Your task to perform on an android device: change text size in settings app Image 0: 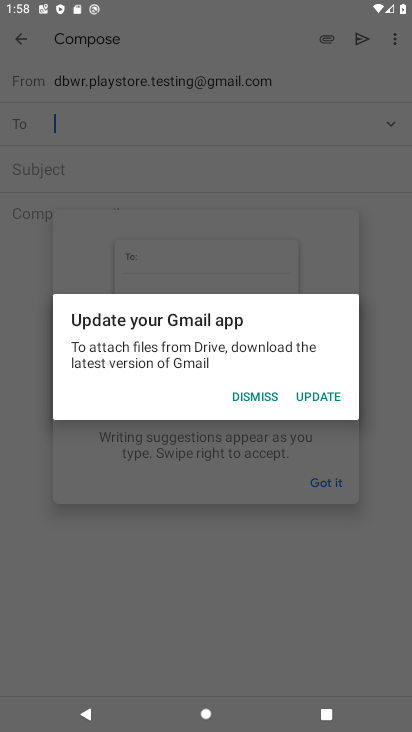
Step 0: press home button
Your task to perform on an android device: change text size in settings app Image 1: 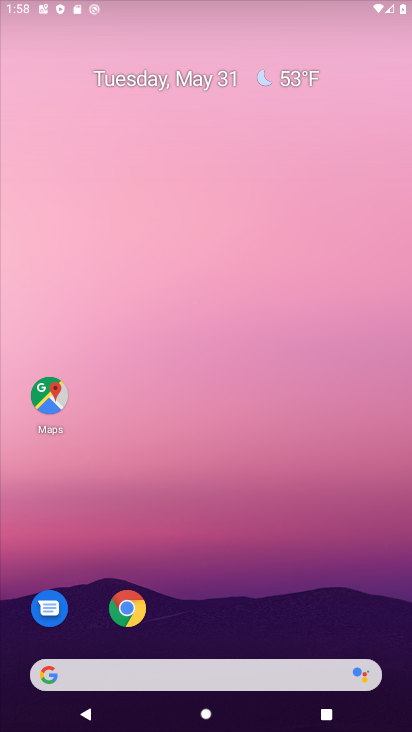
Step 1: drag from (273, 606) to (256, 103)
Your task to perform on an android device: change text size in settings app Image 2: 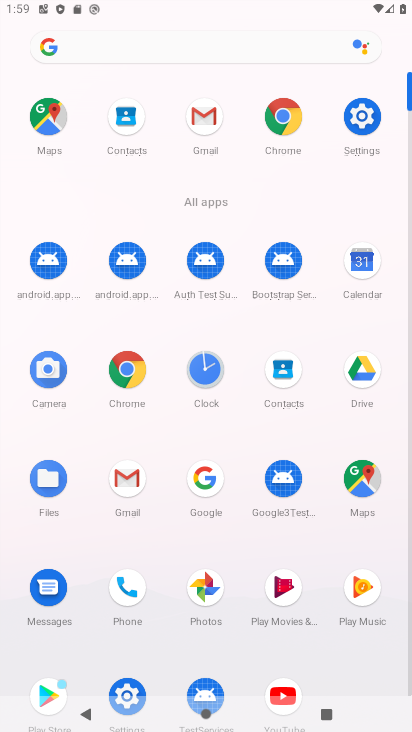
Step 2: click (351, 118)
Your task to perform on an android device: change text size in settings app Image 3: 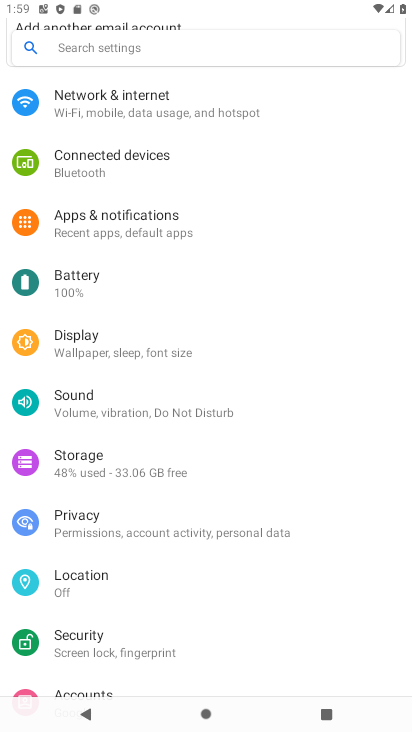
Step 3: click (130, 352)
Your task to perform on an android device: change text size in settings app Image 4: 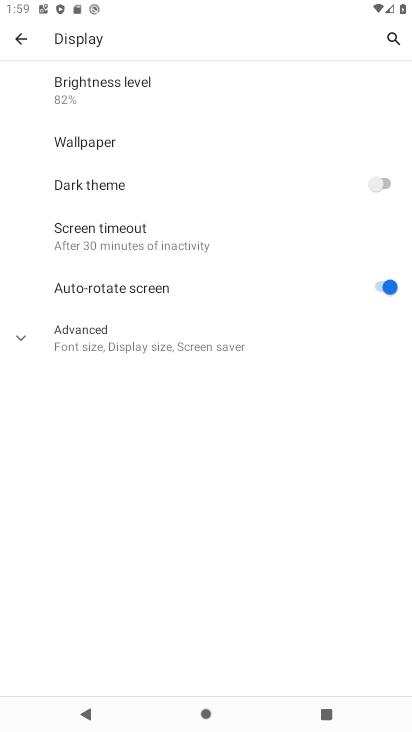
Step 4: click (126, 345)
Your task to perform on an android device: change text size in settings app Image 5: 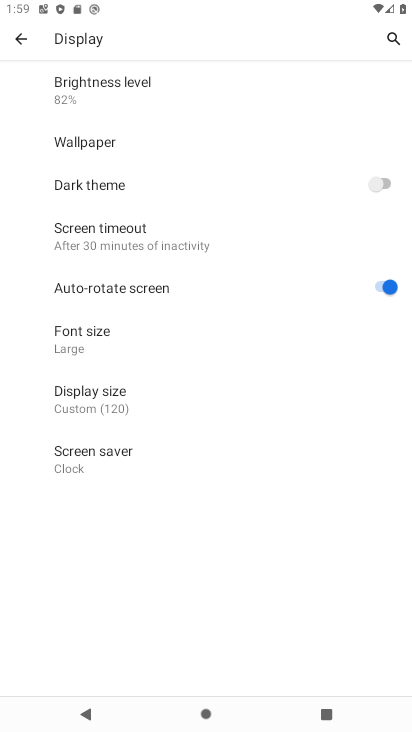
Step 5: click (96, 346)
Your task to perform on an android device: change text size in settings app Image 6: 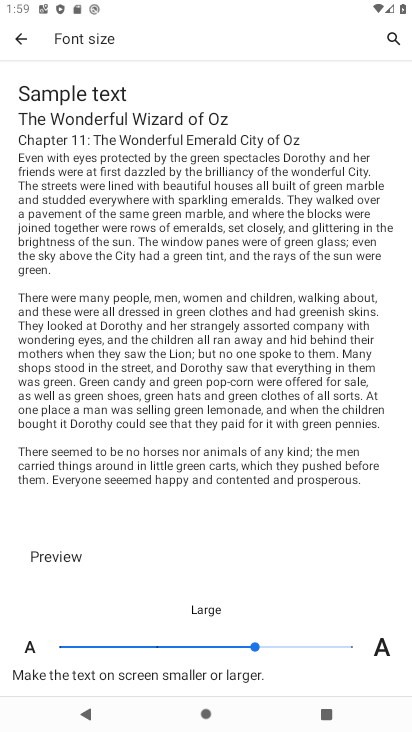
Step 6: task complete